Your task to perform on an android device: Empty the shopping cart on bestbuy. Search for "dell xps" on bestbuy, select the first entry, add it to the cart, then select checkout. Image 0: 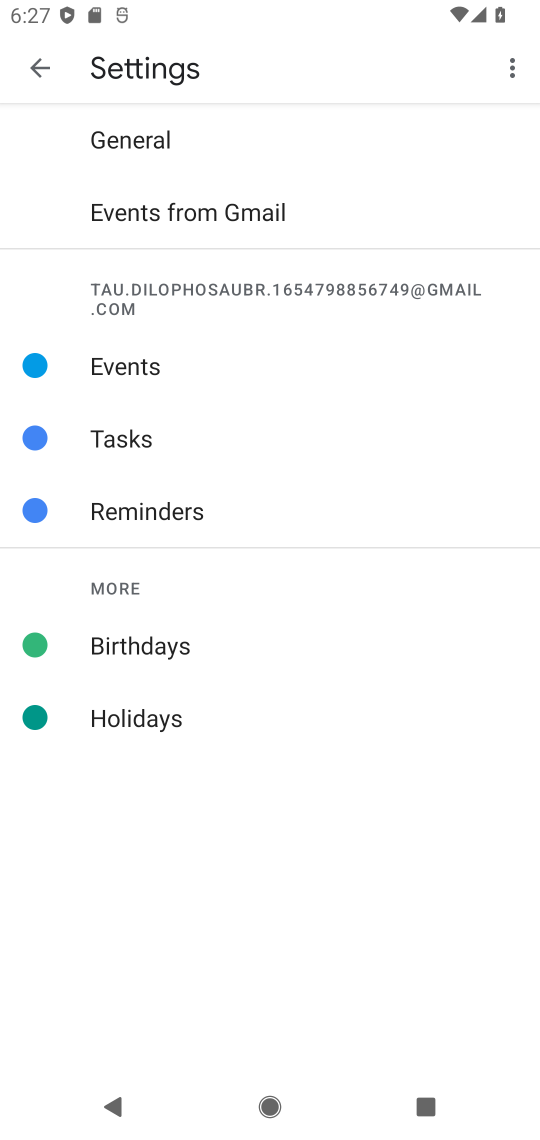
Step 0: press home button
Your task to perform on an android device: Empty the shopping cart on bestbuy. Search for "dell xps" on bestbuy, select the first entry, add it to the cart, then select checkout. Image 1: 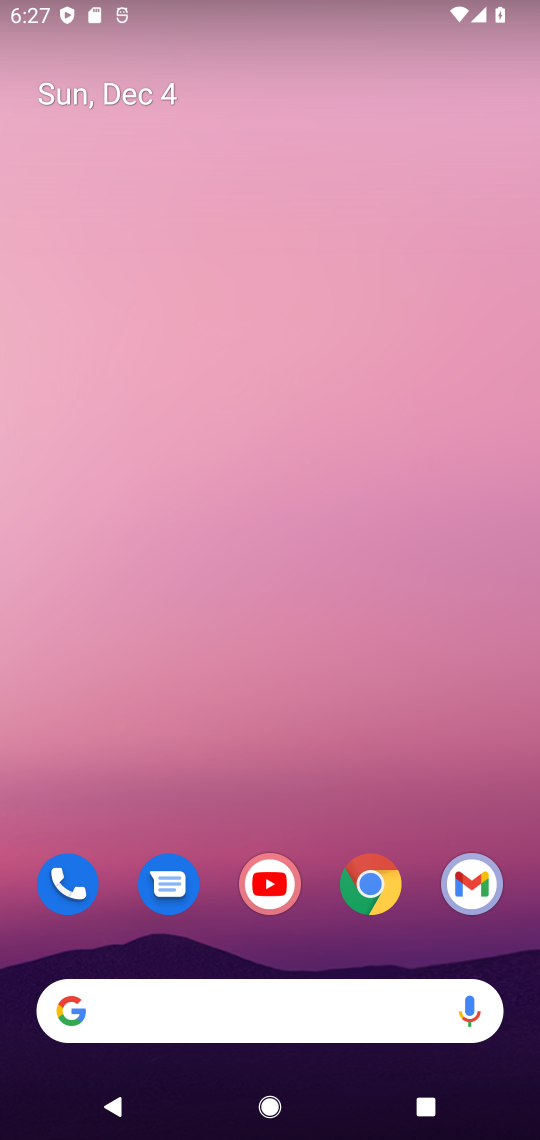
Step 1: drag from (293, 960) to (196, 218)
Your task to perform on an android device: Empty the shopping cart on bestbuy. Search for "dell xps" on bestbuy, select the first entry, add it to the cart, then select checkout. Image 2: 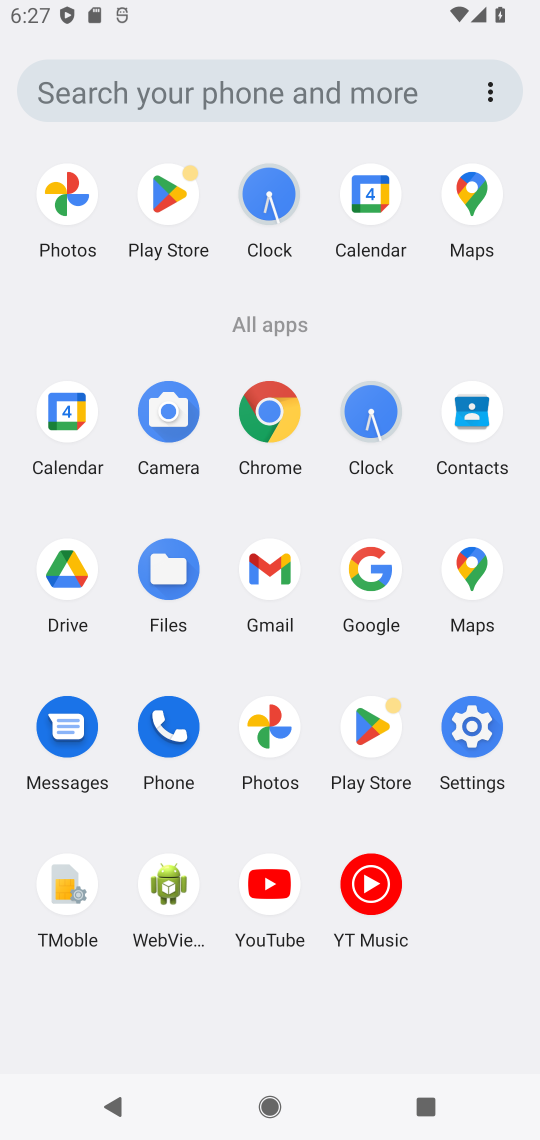
Step 2: click (385, 591)
Your task to perform on an android device: Empty the shopping cart on bestbuy. Search for "dell xps" on bestbuy, select the first entry, add it to the cart, then select checkout. Image 3: 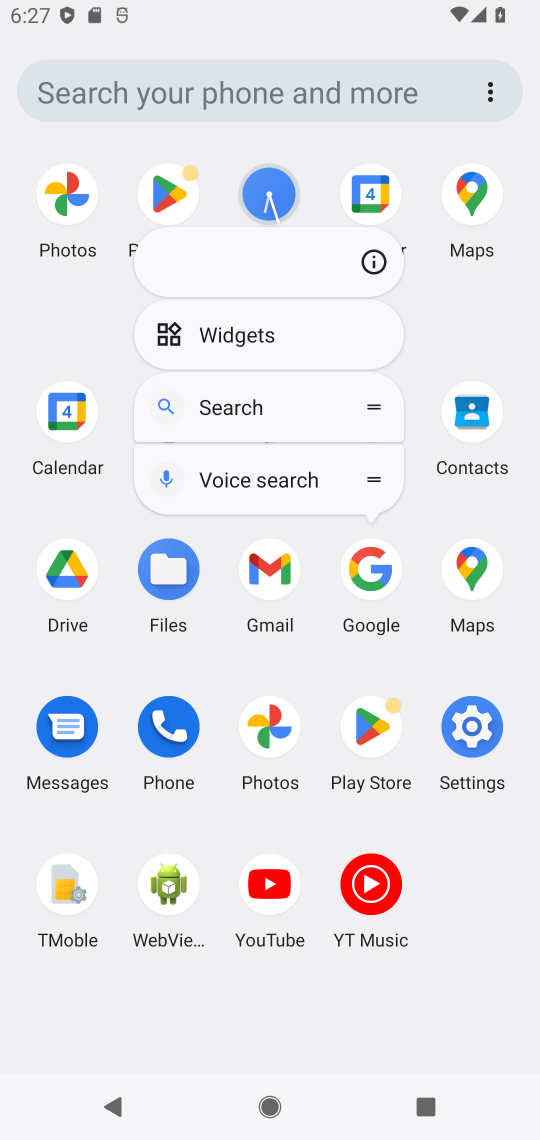
Step 3: click (362, 571)
Your task to perform on an android device: Empty the shopping cart on bestbuy. Search for "dell xps" on bestbuy, select the first entry, add it to the cart, then select checkout. Image 4: 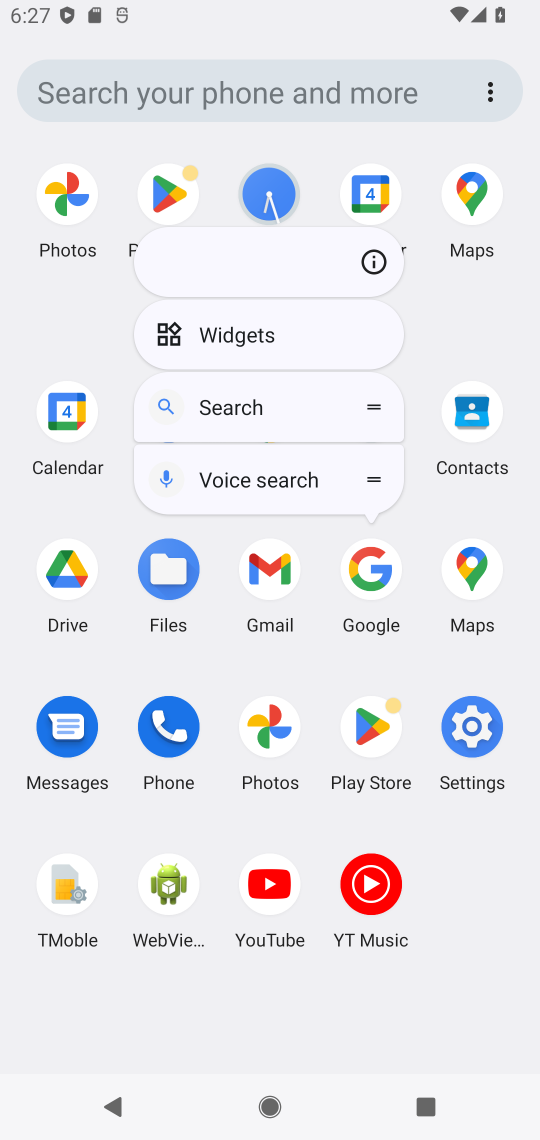
Step 4: click (366, 580)
Your task to perform on an android device: Empty the shopping cart on bestbuy. Search for "dell xps" on bestbuy, select the first entry, add it to the cart, then select checkout. Image 5: 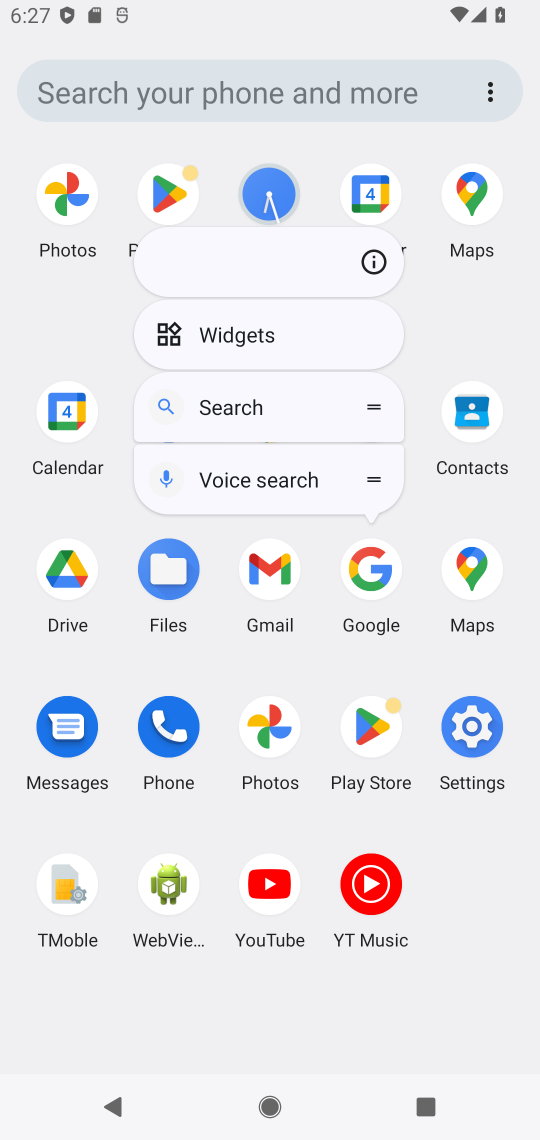
Step 5: click (386, 559)
Your task to perform on an android device: Empty the shopping cart on bestbuy. Search for "dell xps" on bestbuy, select the first entry, add it to the cart, then select checkout. Image 6: 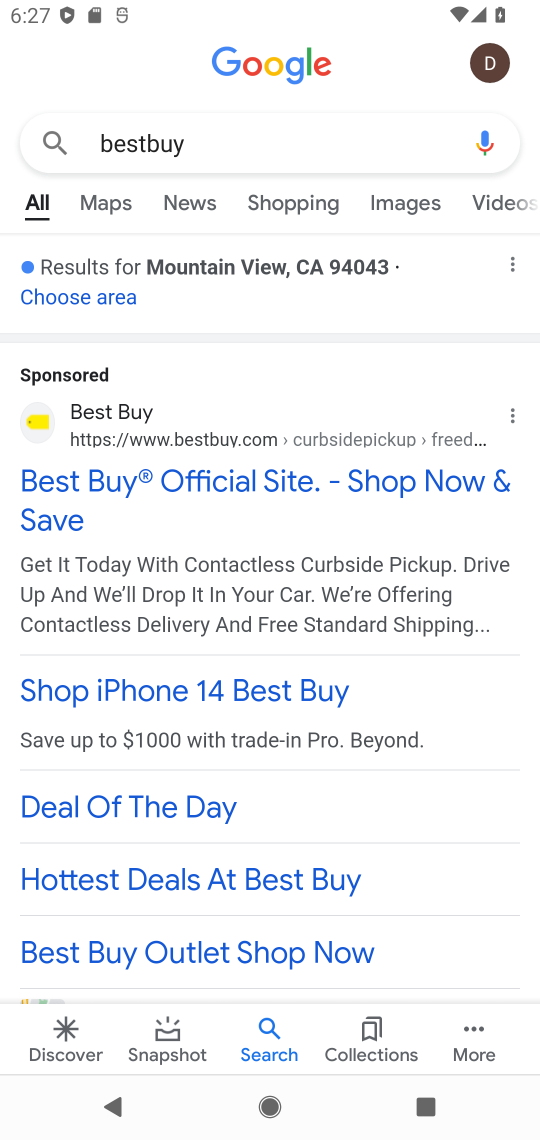
Step 6: click (283, 488)
Your task to perform on an android device: Empty the shopping cart on bestbuy. Search for "dell xps" on bestbuy, select the first entry, add it to the cart, then select checkout. Image 7: 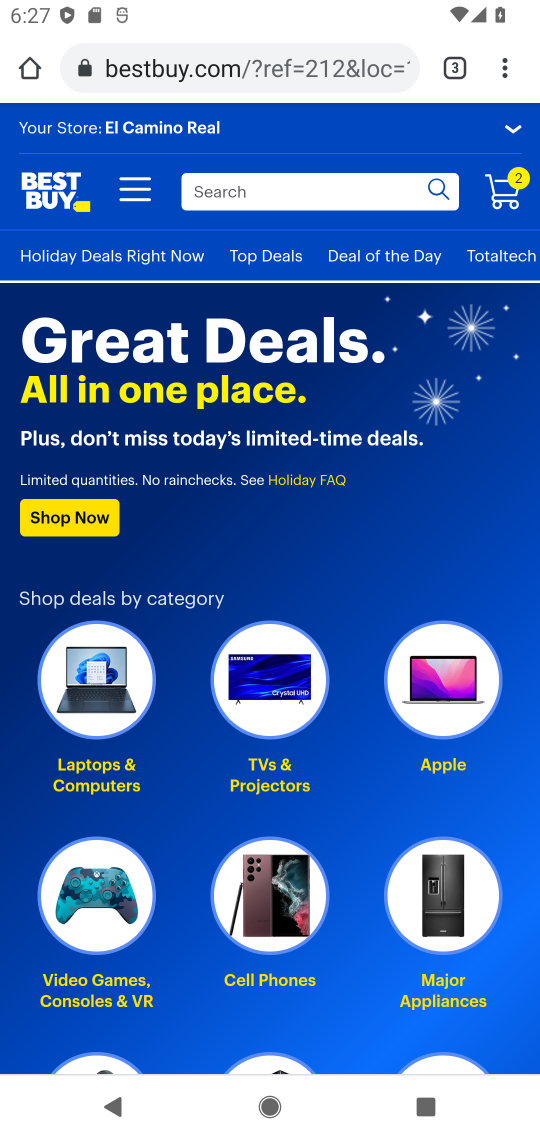
Step 7: click (499, 184)
Your task to perform on an android device: Empty the shopping cart on bestbuy. Search for "dell xps" on bestbuy, select the first entry, add it to the cart, then select checkout. Image 8: 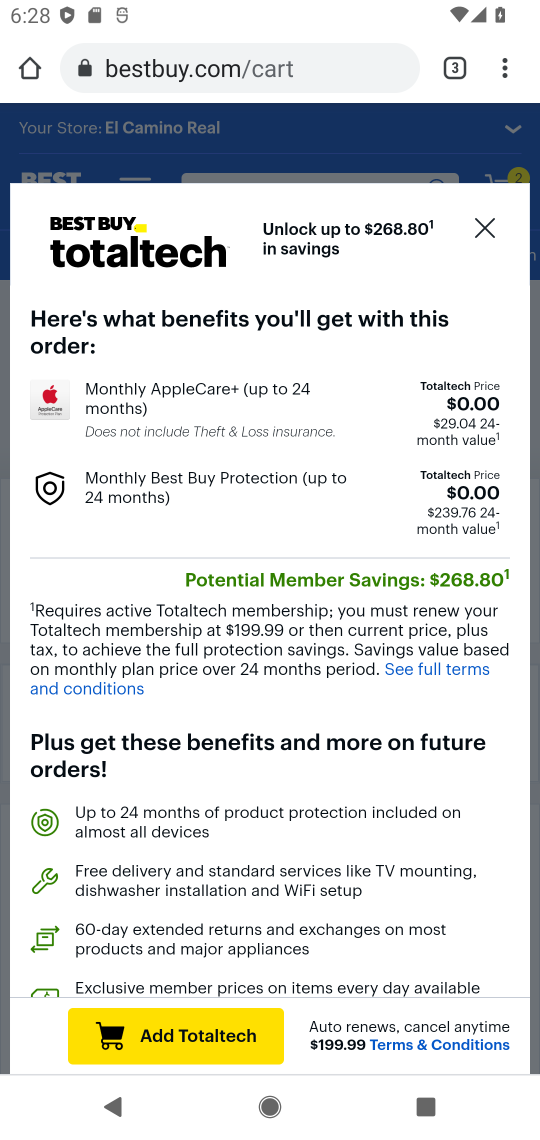
Step 8: click (477, 231)
Your task to perform on an android device: Empty the shopping cart on bestbuy. Search for "dell xps" on bestbuy, select the first entry, add it to the cart, then select checkout. Image 9: 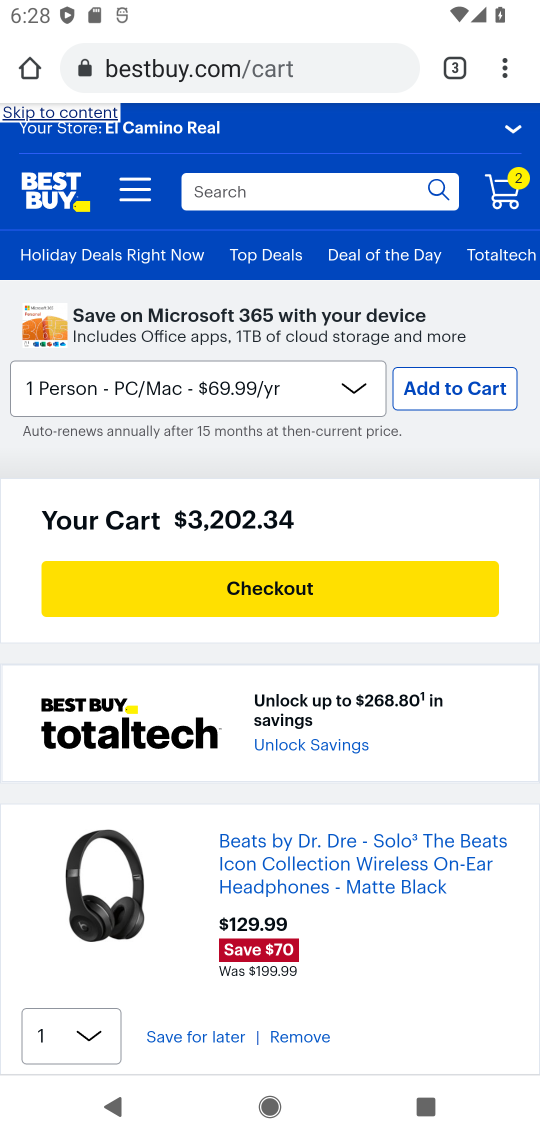
Step 9: click (309, 1036)
Your task to perform on an android device: Empty the shopping cart on bestbuy. Search for "dell xps" on bestbuy, select the first entry, add it to the cart, then select checkout. Image 10: 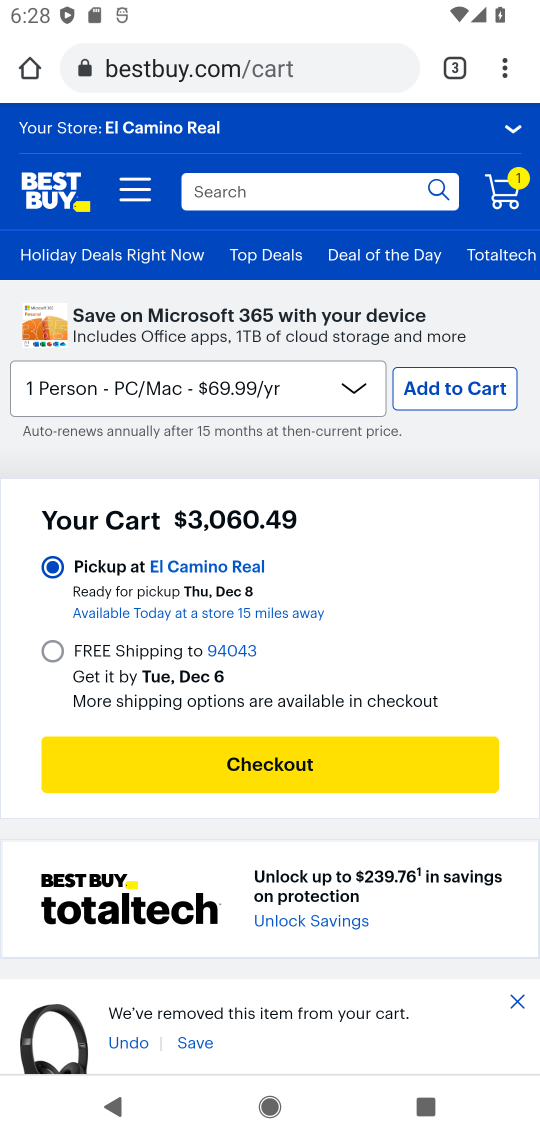
Step 10: drag from (373, 912) to (285, 541)
Your task to perform on an android device: Empty the shopping cart on bestbuy. Search for "dell xps" on bestbuy, select the first entry, add it to the cart, then select checkout. Image 11: 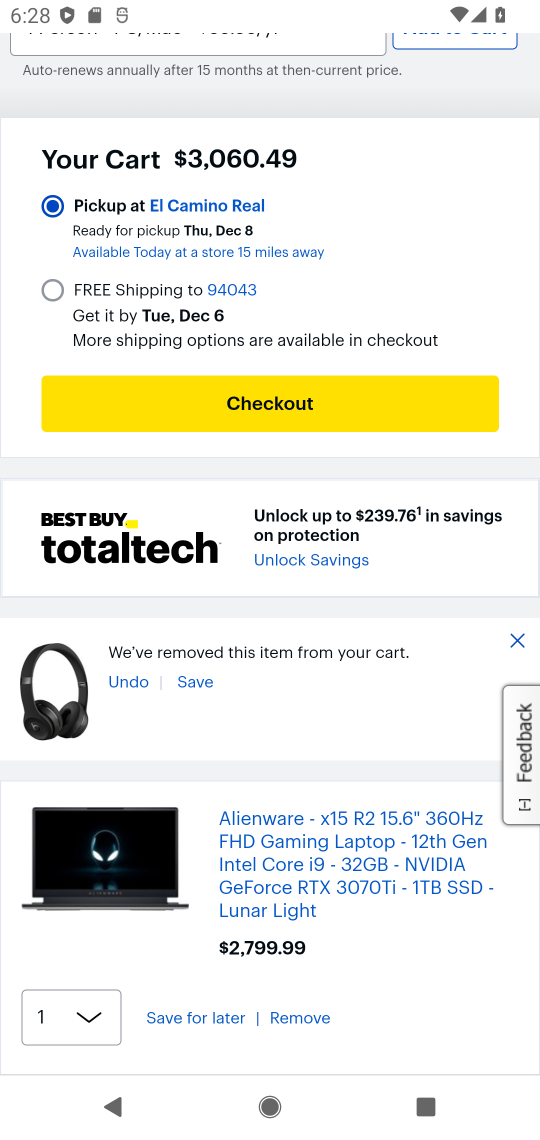
Step 11: click (284, 1017)
Your task to perform on an android device: Empty the shopping cart on bestbuy. Search for "dell xps" on bestbuy, select the first entry, add it to the cart, then select checkout. Image 12: 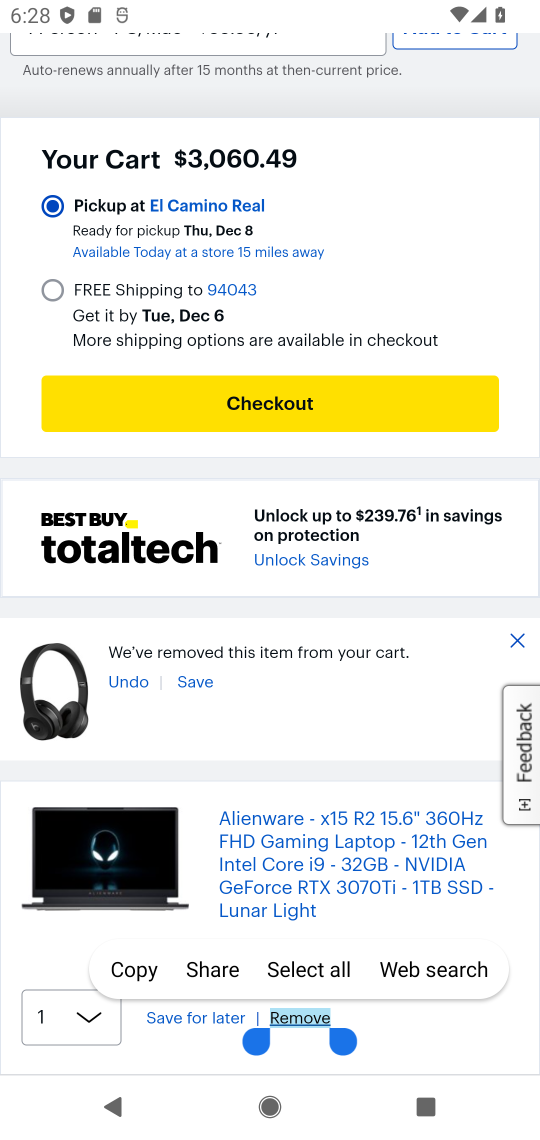
Step 12: click (284, 1017)
Your task to perform on an android device: Empty the shopping cart on bestbuy. Search for "dell xps" on bestbuy, select the first entry, add it to the cart, then select checkout. Image 13: 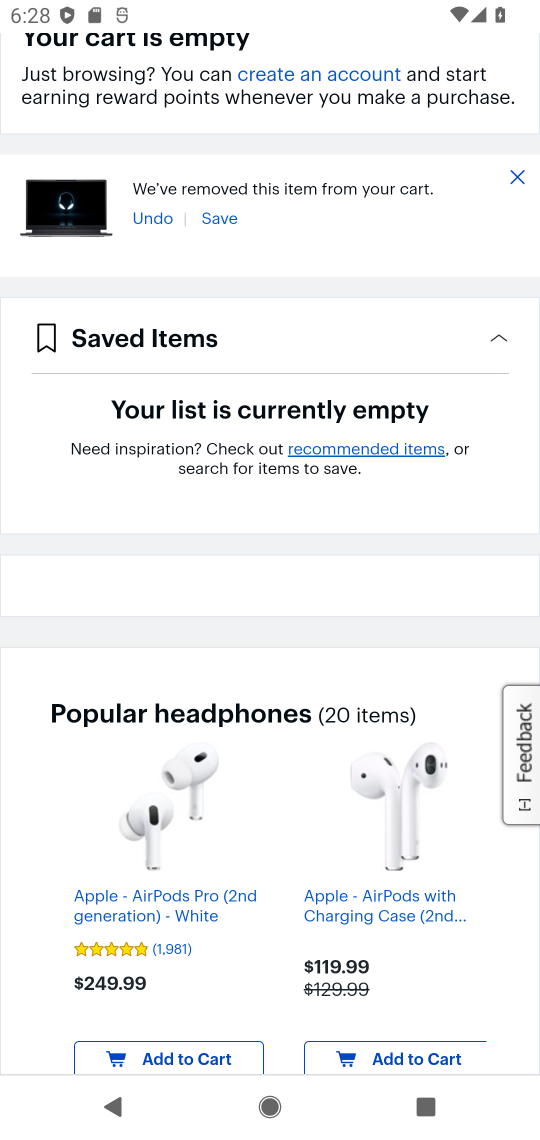
Step 13: drag from (181, 217) to (376, 897)
Your task to perform on an android device: Empty the shopping cart on bestbuy. Search for "dell xps" on bestbuy, select the first entry, add it to the cart, then select checkout. Image 14: 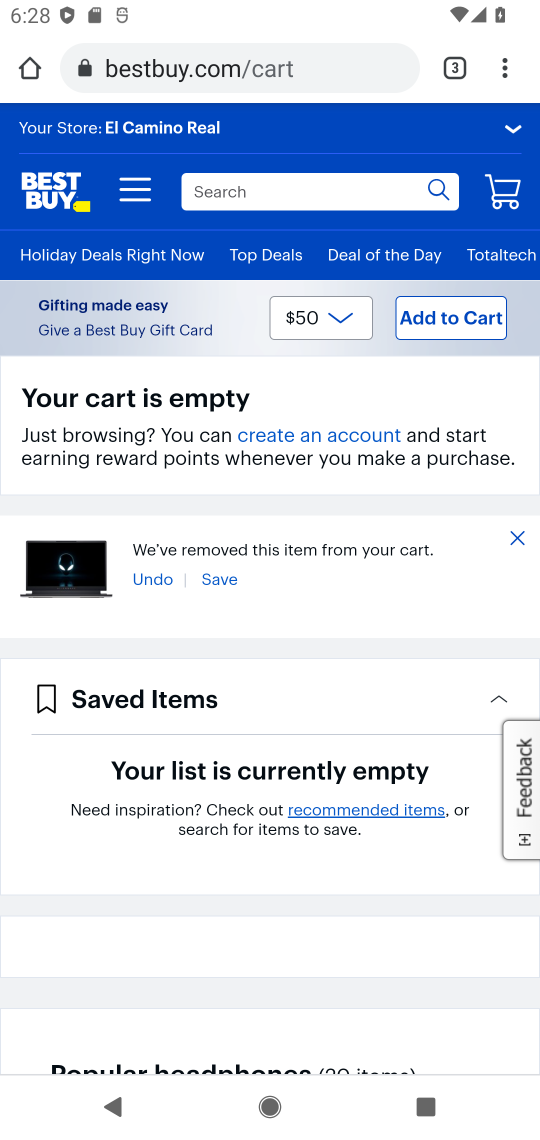
Step 14: click (207, 181)
Your task to perform on an android device: Empty the shopping cart on bestbuy. Search for "dell xps" on bestbuy, select the first entry, add it to the cart, then select checkout. Image 15: 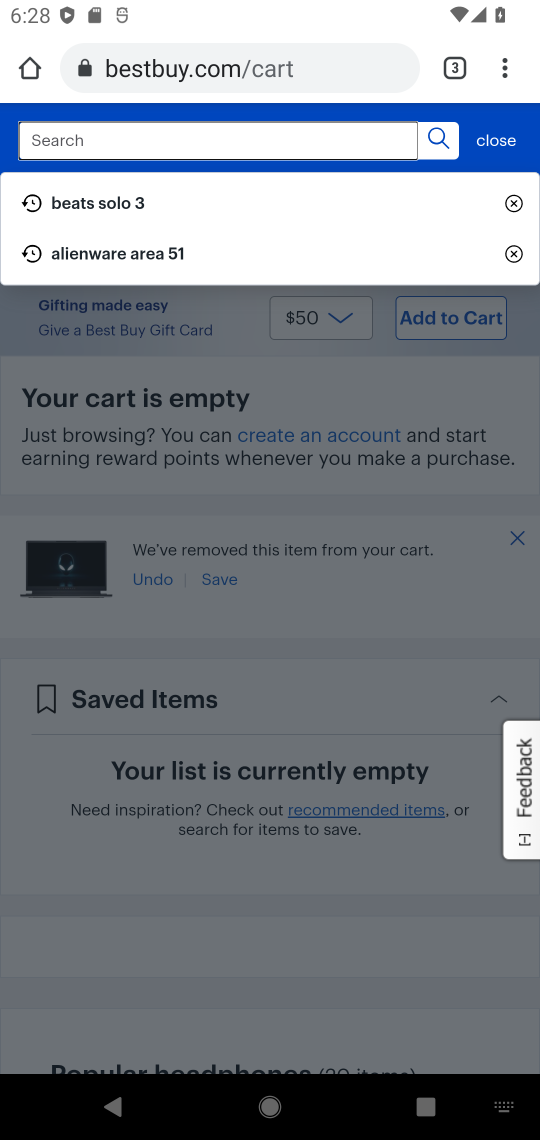
Step 15: type "dell xps"
Your task to perform on an android device: Empty the shopping cart on bestbuy. Search for "dell xps" on bestbuy, select the first entry, add it to the cart, then select checkout. Image 16: 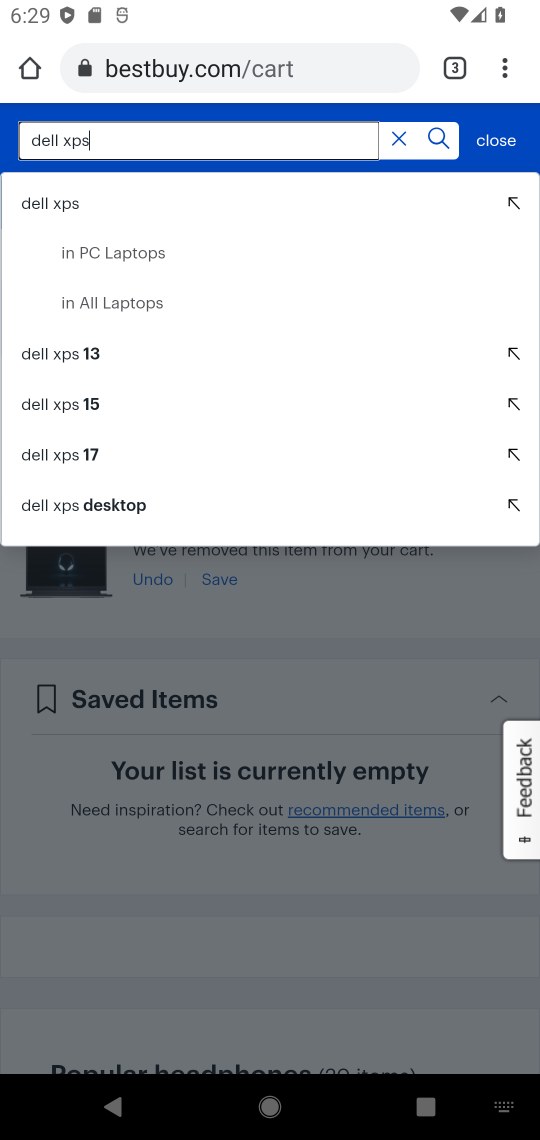
Step 16: click (46, 213)
Your task to perform on an android device: Empty the shopping cart on bestbuy. Search for "dell xps" on bestbuy, select the first entry, add it to the cart, then select checkout. Image 17: 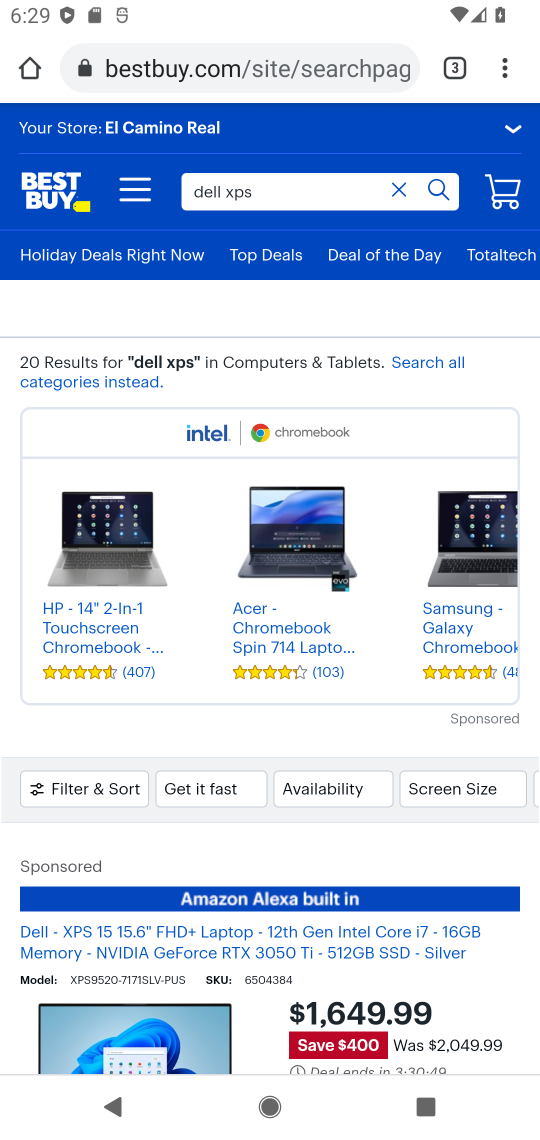
Step 17: drag from (290, 923) to (0, 329)
Your task to perform on an android device: Empty the shopping cart on bestbuy. Search for "dell xps" on bestbuy, select the first entry, add it to the cart, then select checkout. Image 18: 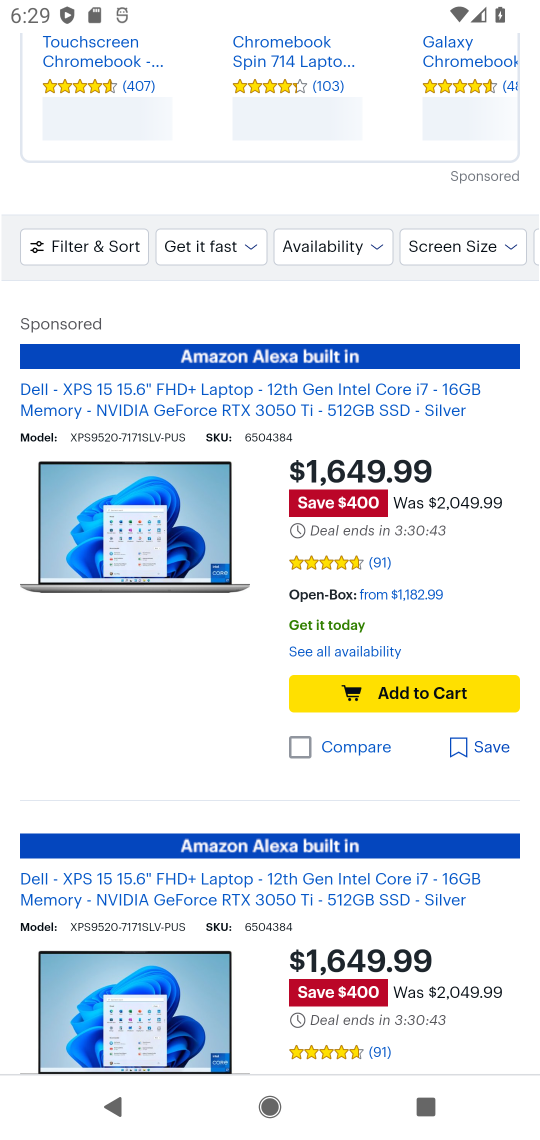
Step 18: click (373, 694)
Your task to perform on an android device: Empty the shopping cart on bestbuy. Search for "dell xps" on bestbuy, select the first entry, add it to the cart, then select checkout. Image 19: 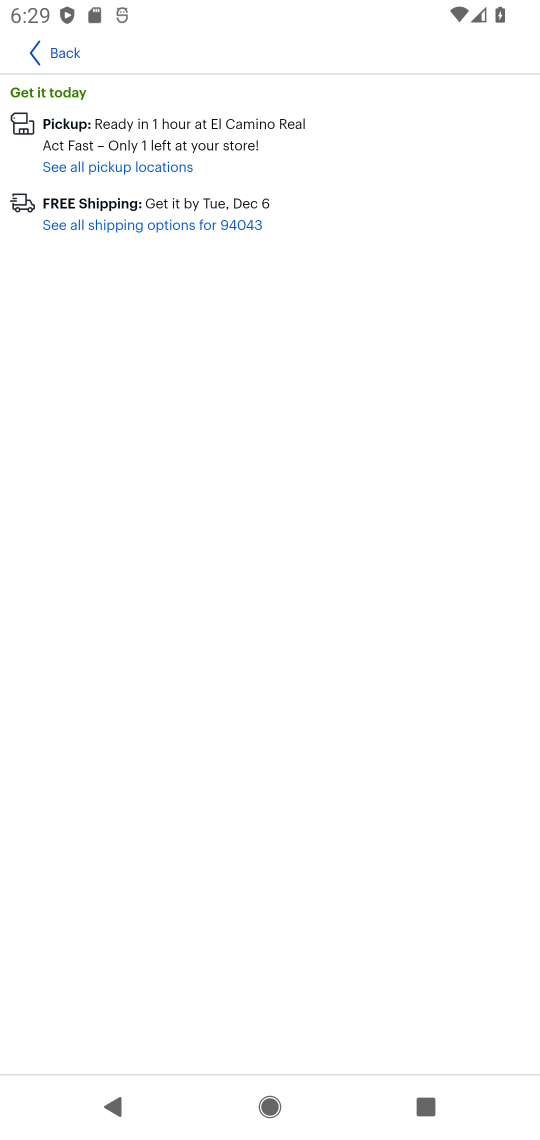
Step 19: click (29, 60)
Your task to perform on an android device: Empty the shopping cart on bestbuy. Search for "dell xps" on bestbuy, select the first entry, add it to the cart, then select checkout. Image 20: 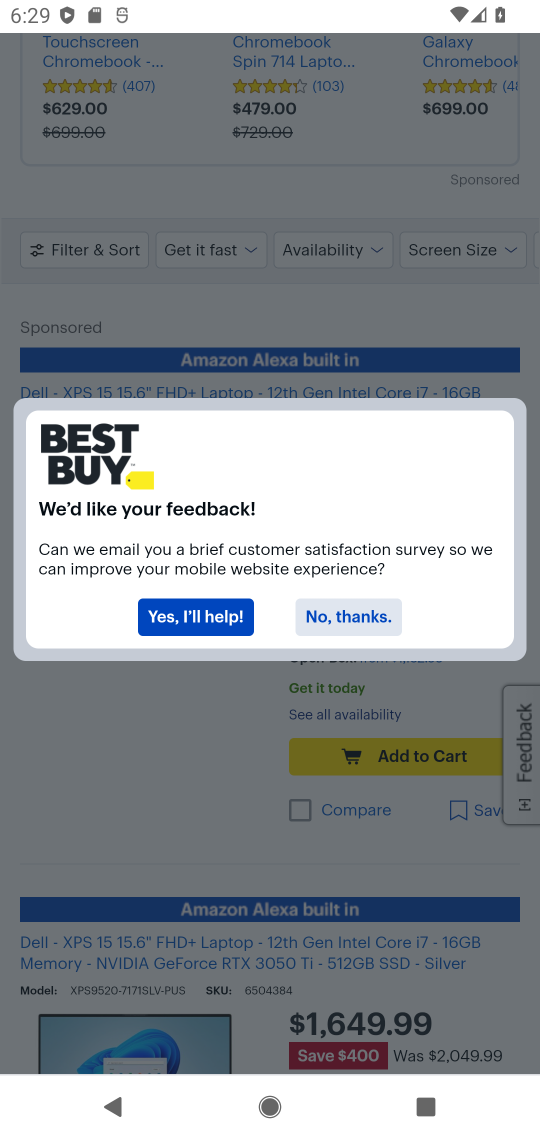
Step 20: click (107, 736)
Your task to perform on an android device: Empty the shopping cart on bestbuy. Search for "dell xps" on bestbuy, select the first entry, add it to the cart, then select checkout. Image 21: 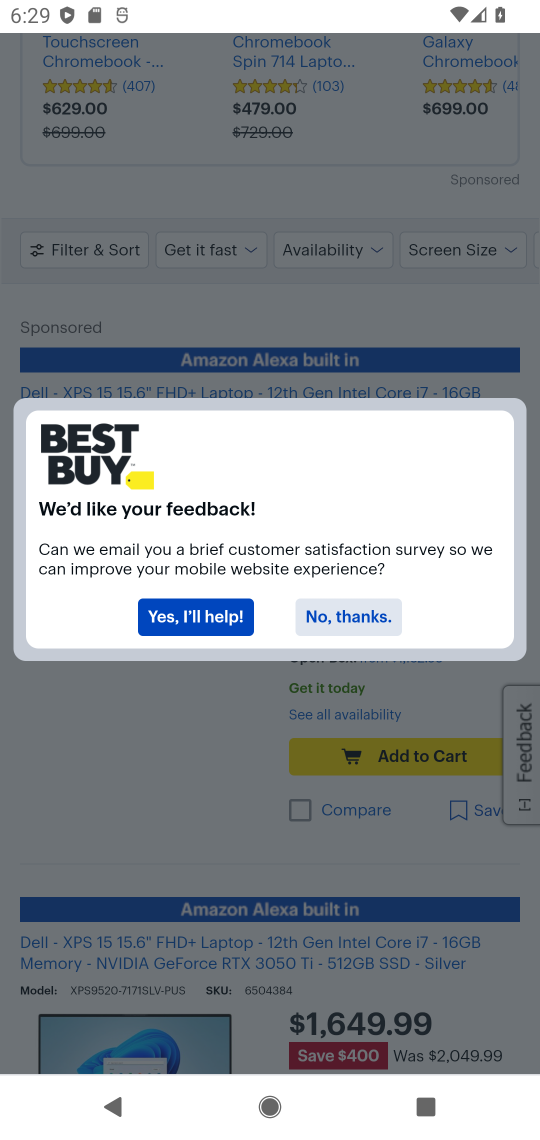
Step 21: click (331, 619)
Your task to perform on an android device: Empty the shopping cart on bestbuy. Search for "dell xps" on bestbuy, select the first entry, add it to the cart, then select checkout. Image 22: 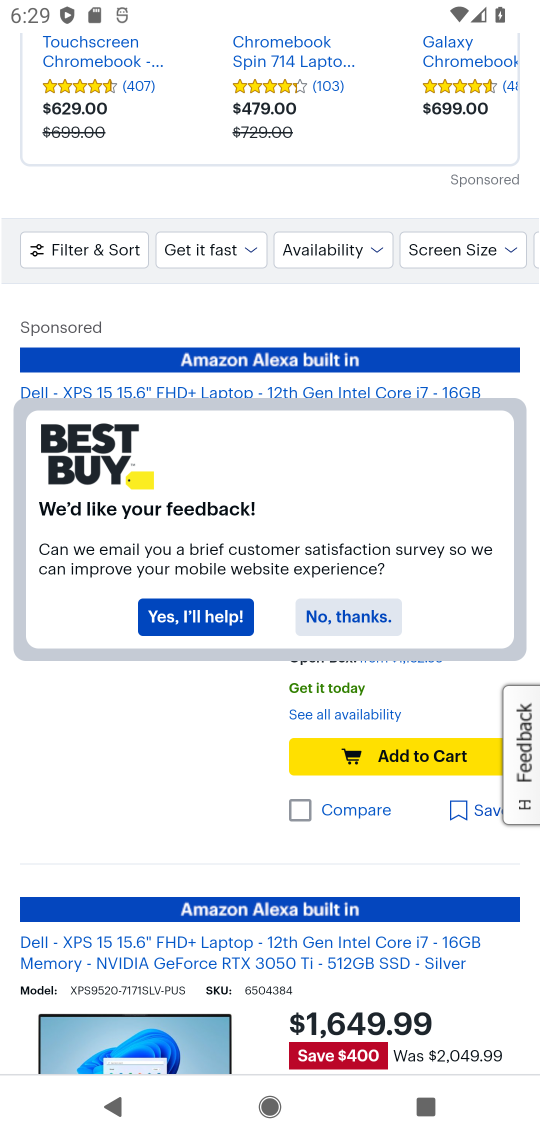
Step 22: click (396, 760)
Your task to perform on an android device: Empty the shopping cart on bestbuy. Search for "dell xps" on bestbuy, select the first entry, add it to the cart, then select checkout. Image 23: 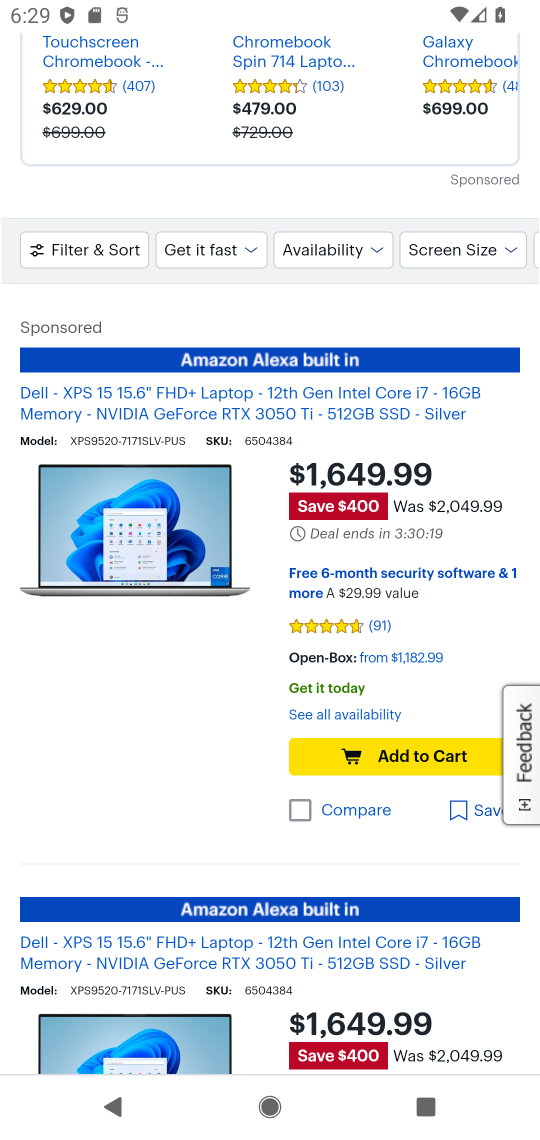
Step 23: click (413, 753)
Your task to perform on an android device: Empty the shopping cart on bestbuy. Search for "dell xps" on bestbuy, select the first entry, add it to the cart, then select checkout. Image 24: 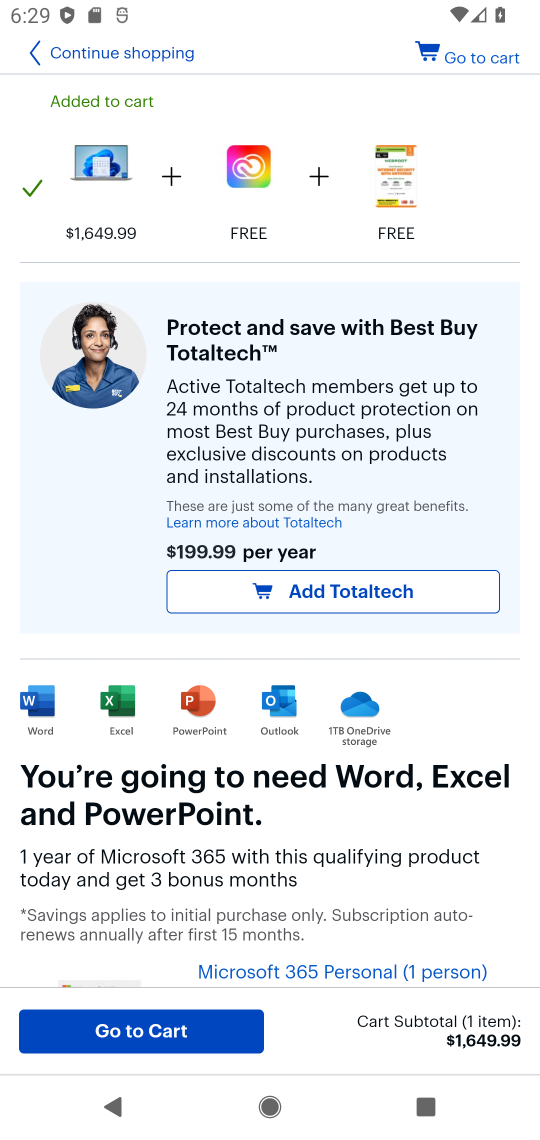
Step 24: click (171, 1027)
Your task to perform on an android device: Empty the shopping cart on bestbuy. Search for "dell xps" on bestbuy, select the first entry, add it to the cart, then select checkout. Image 25: 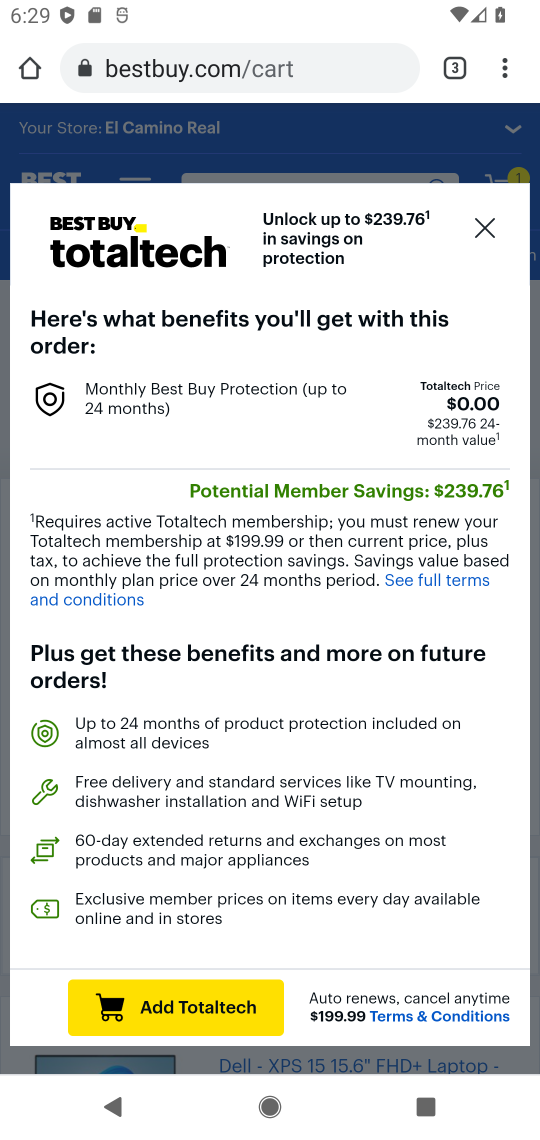
Step 25: click (485, 219)
Your task to perform on an android device: Empty the shopping cart on bestbuy. Search for "dell xps" on bestbuy, select the first entry, add it to the cart, then select checkout. Image 26: 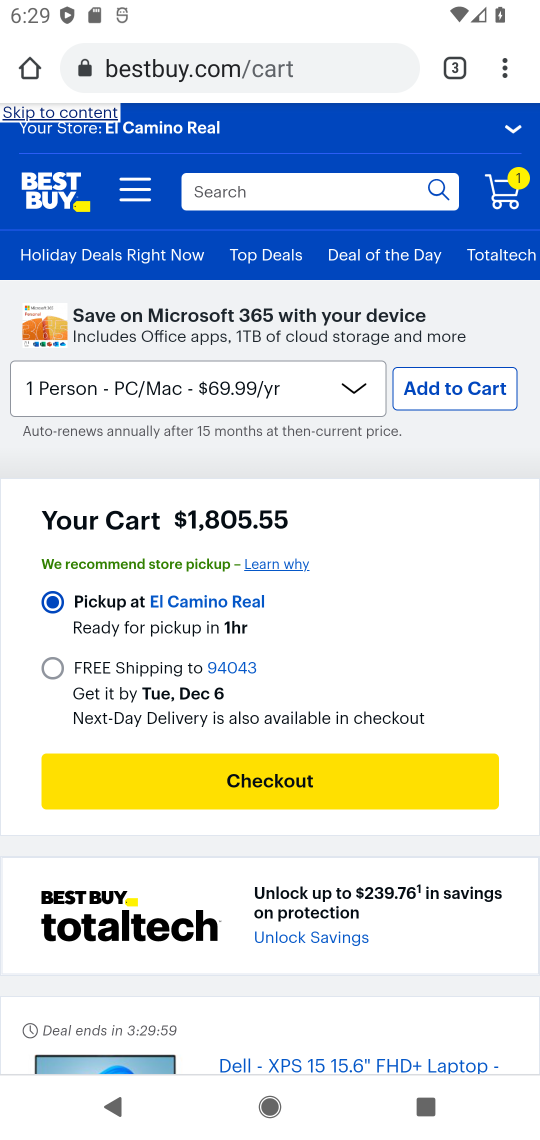
Step 26: click (293, 772)
Your task to perform on an android device: Empty the shopping cart on bestbuy. Search for "dell xps" on bestbuy, select the first entry, add it to the cart, then select checkout. Image 27: 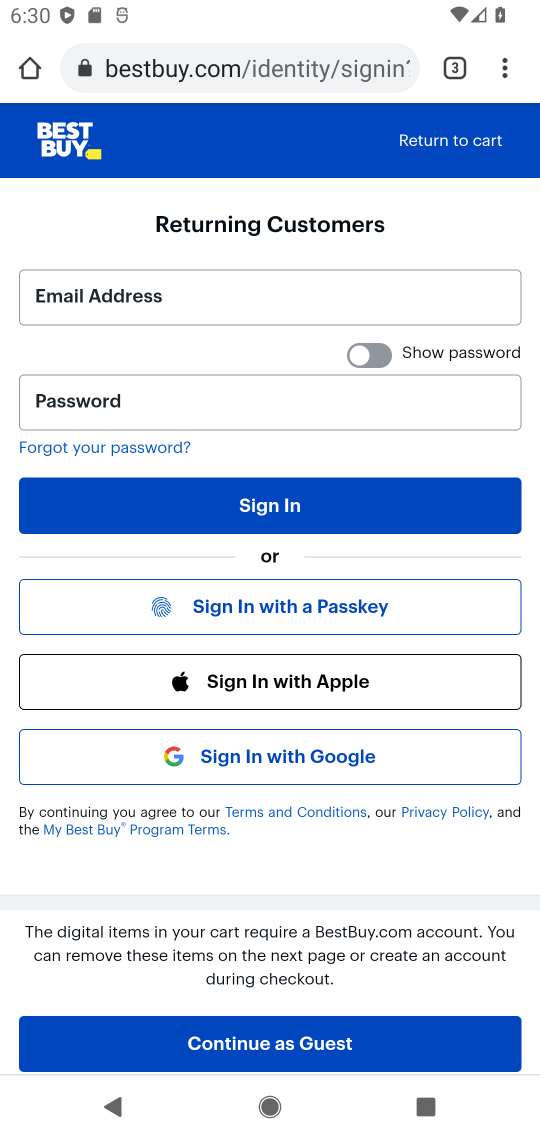
Step 27: task complete